Your task to perform on an android device: turn on wifi Image 0: 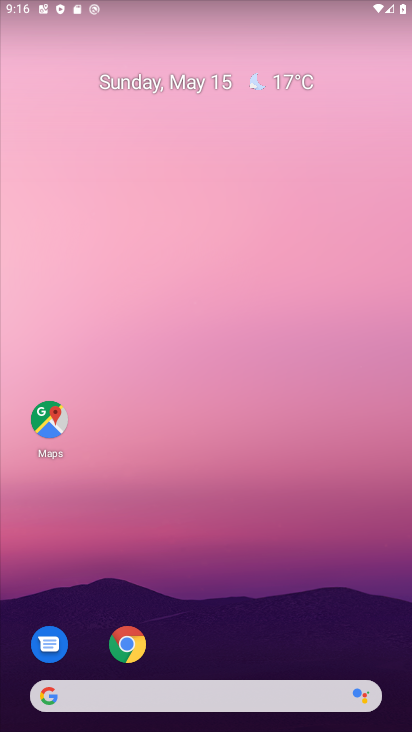
Step 0: drag from (166, 716) to (361, 118)
Your task to perform on an android device: turn on wifi Image 1: 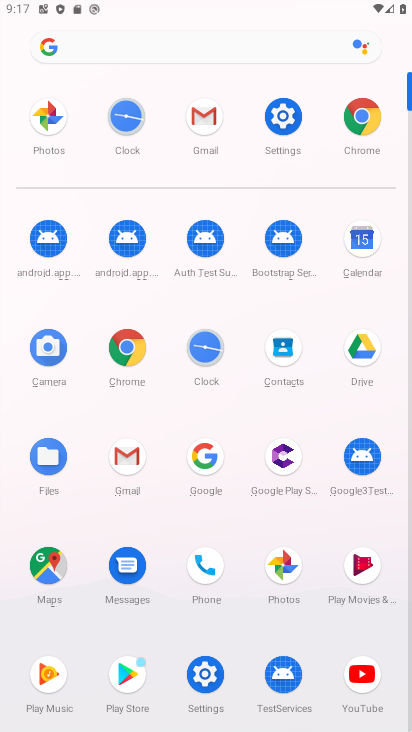
Step 1: click (289, 116)
Your task to perform on an android device: turn on wifi Image 2: 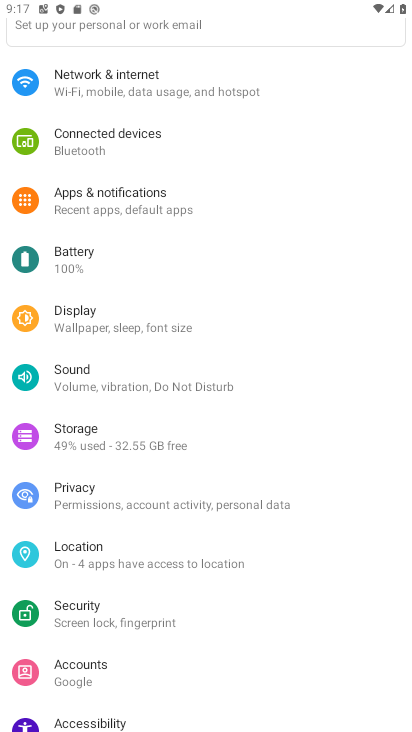
Step 2: click (125, 71)
Your task to perform on an android device: turn on wifi Image 3: 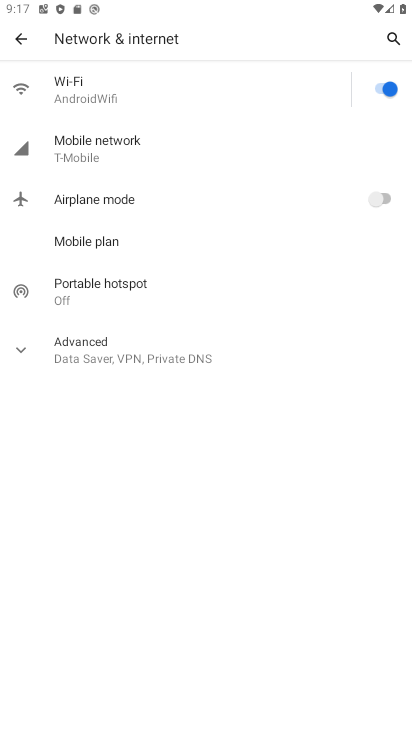
Step 3: click (133, 93)
Your task to perform on an android device: turn on wifi Image 4: 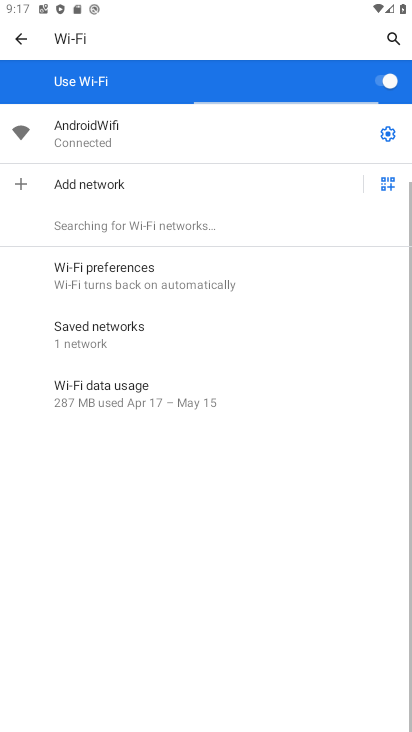
Step 4: task complete